Your task to perform on an android device: Go to display settings Image 0: 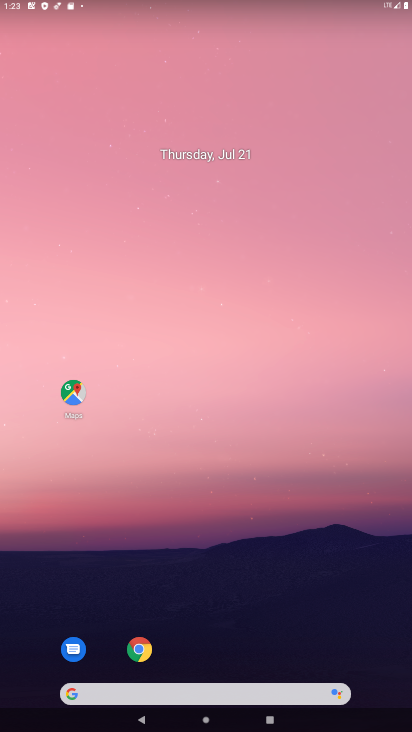
Step 0: drag from (225, 595) to (221, 140)
Your task to perform on an android device: Go to display settings Image 1: 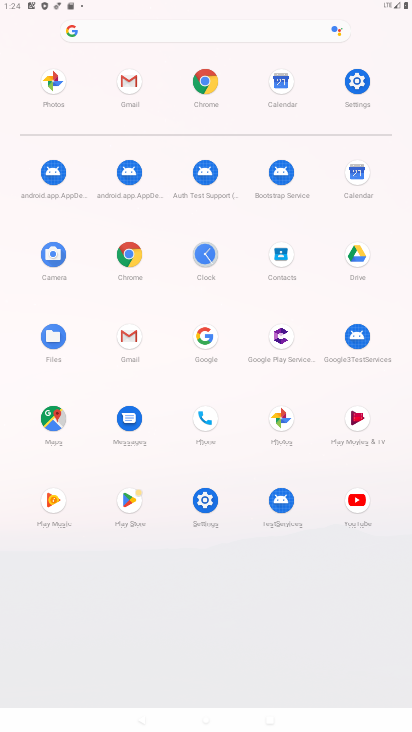
Step 1: click (354, 82)
Your task to perform on an android device: Go to display settings Image 2: 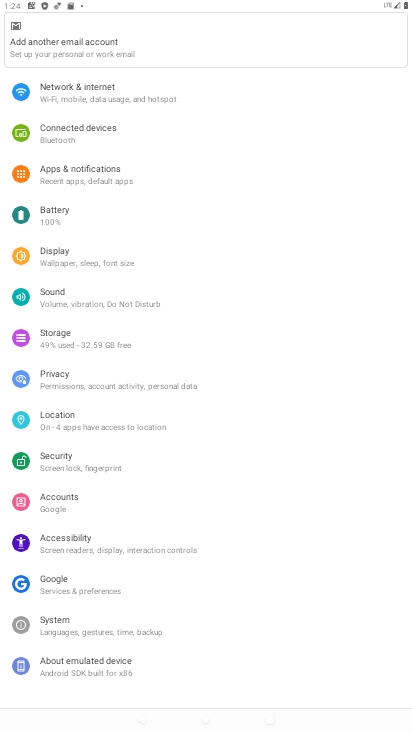
Step 2: click (54, 253)
Your task to perform on an android device: Go to display settings Image 3: 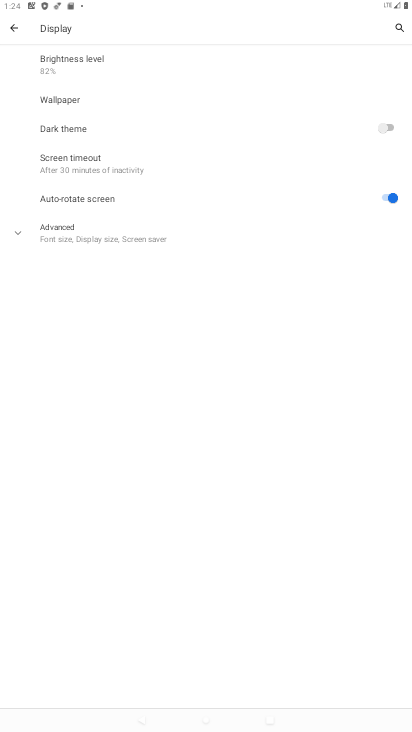
Step 3: task complete